Your task to perform on an android device: Show me popular games on the Play Store Image 0: 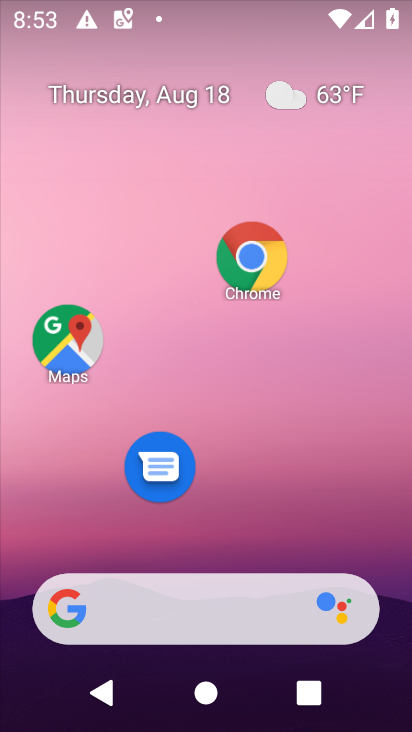
Step 0: drag from (315, 490) to (296, 93)
Your task to perform on an android device: Show me popular games on the Play Store Image 1: 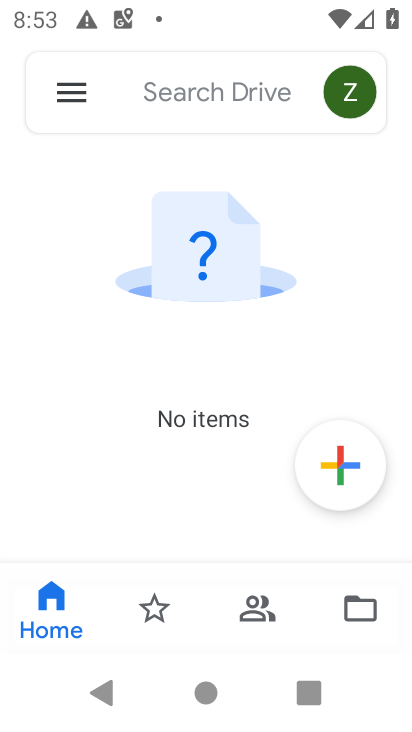
Step 1: task complete